Your task to perform on an android device: see sites visited before in the chrome app Image 0: 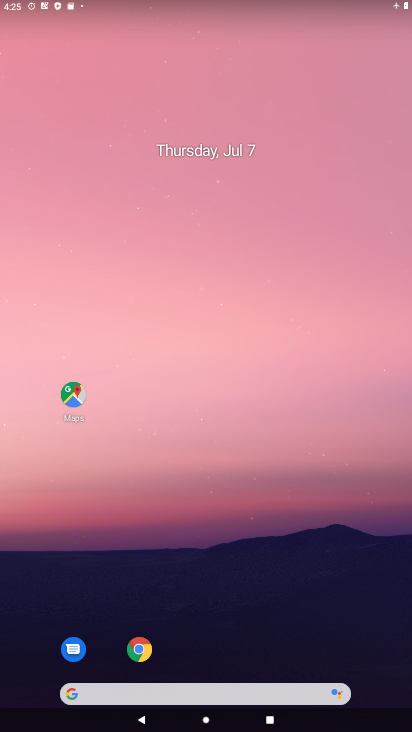
Step 0: drag from (371, 683) to (138, 102)
Your task to perform on an android device: see sites visited before in the chrome app Image 1: 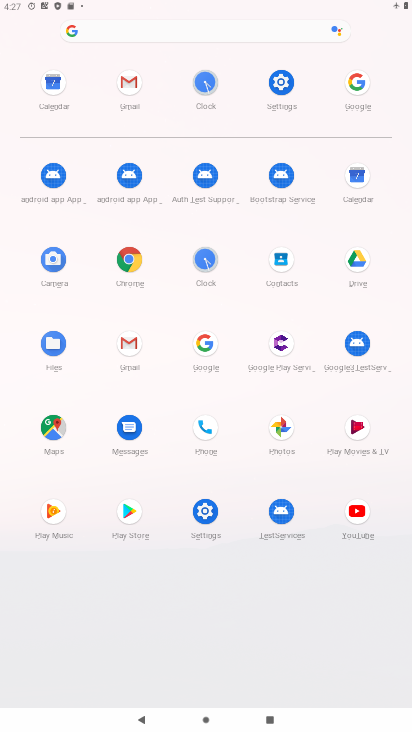
Step 1: click (121, 260)
Your task to perform on an android device: see sites visited before in the chrome app Image 2: 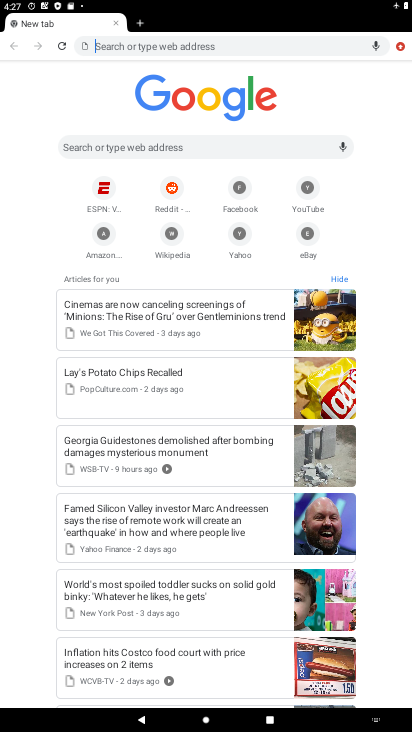
Step 2: task complete